Your task to perform on an android device: Show me the alarms in the clock app Image 0: 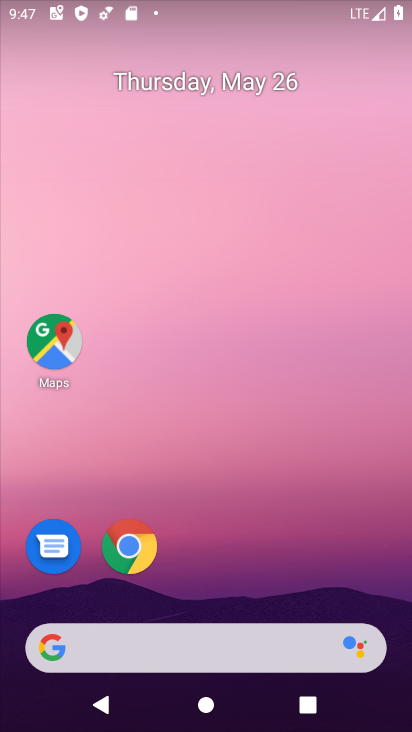
Step 0: drag from (300, 571) to (287, 218)
Your task to perform on an android device: Show me the alarms in the clock app Image 1: 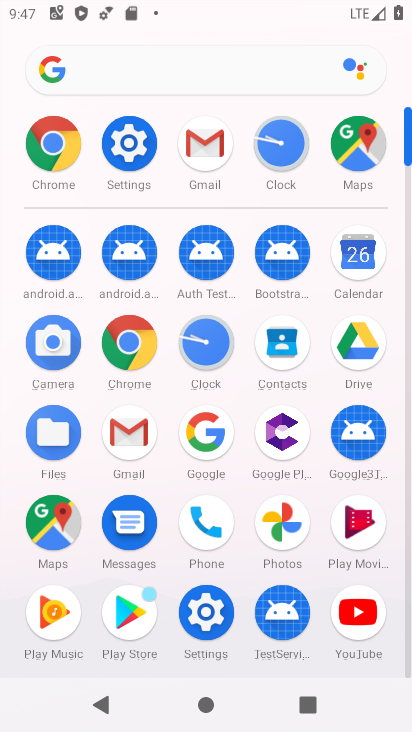
Step 1: click (225, 316)
Your task to perform on an android device: Show me the alarms in the clock app Image 2: 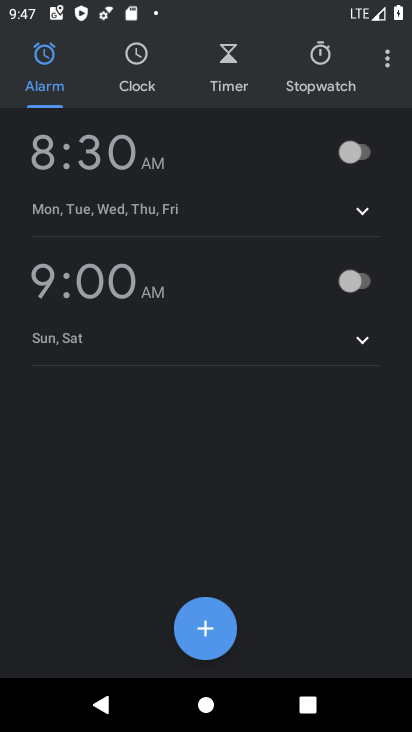
Step 2: task complete